Your task to perform on an android device: read, delete, or share a saved page in the chrome app Image 0: 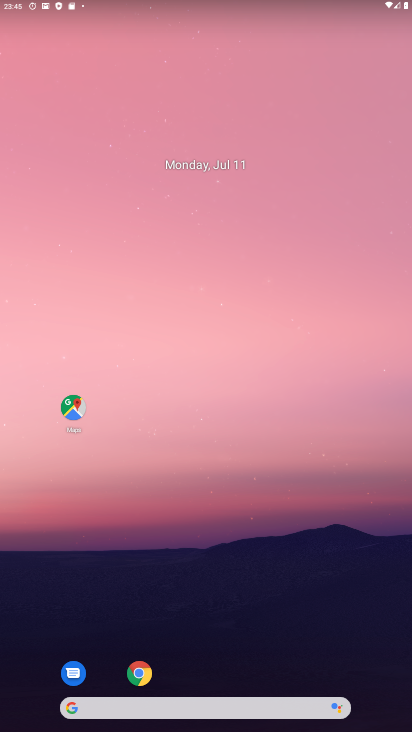
Step 0: click (140, 668)
Your task to perform on an android device: read, delete, or share a saved page in the chrome app Image 1: 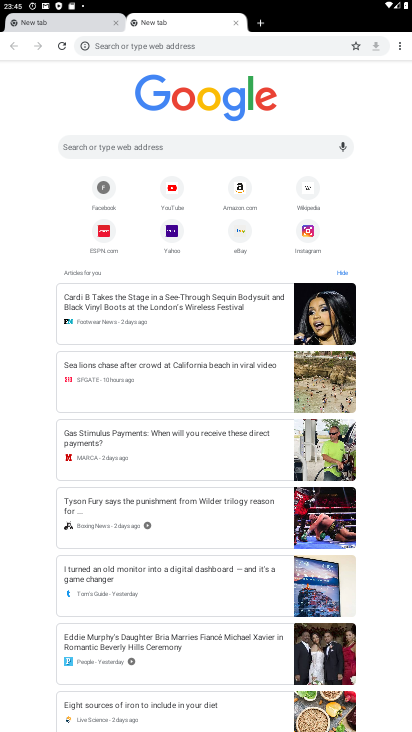
Step 1: drag from (397, 44) to (300, 162)
Your task to perform on an android device: read, delete, or share a saved page in the chrome app Image 2: 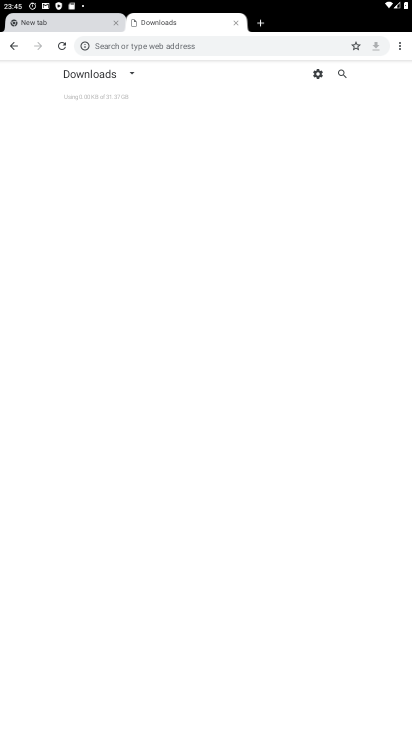
Step 2: click (127, 75)
Your task to perform on an android device: read, delete, or share a saved page in the chrome app Image 3: 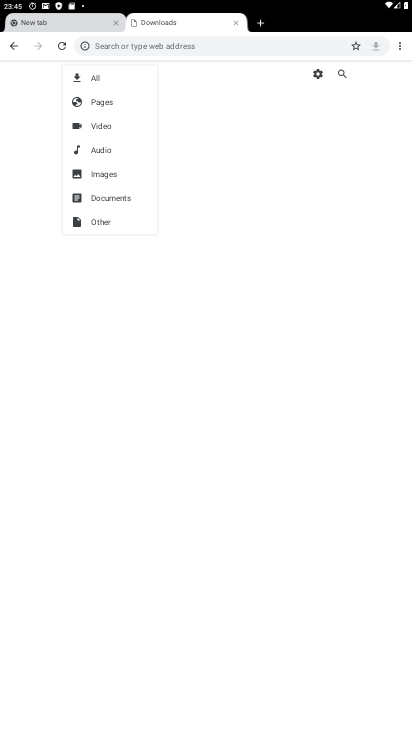
Step 3: click (111, 108)
Your task to perform on an android device: read, delete, or share a saved page in the chrome app Image 4: 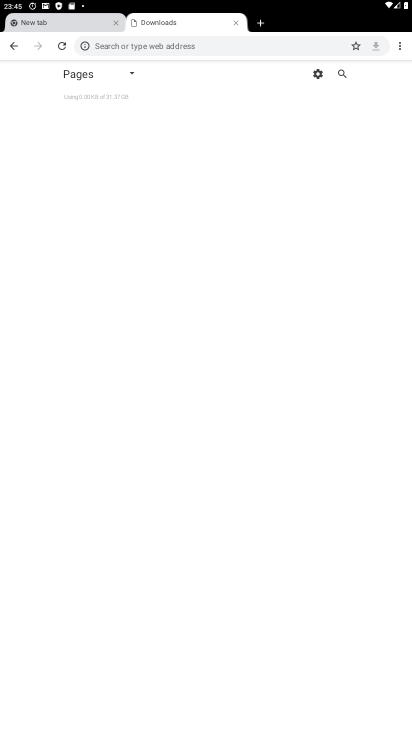
Step 4: task complete